Your task to perform on an android device: allow notifications from all sites in the chrome app Image 0: 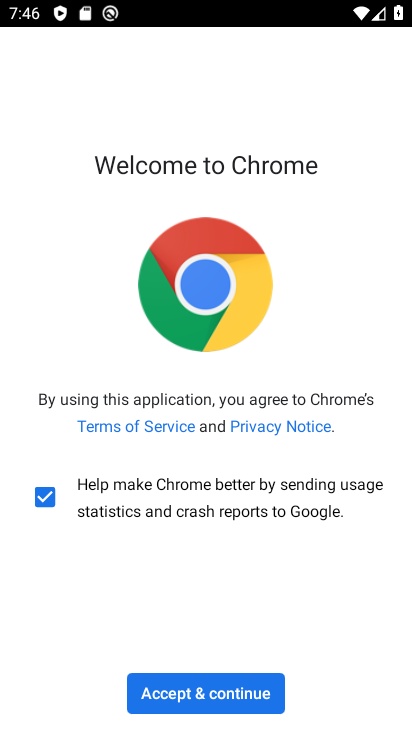
Step 0: press back button
Your task to perform on an android device: allow notifications from all sites in the chrome app Image 1: 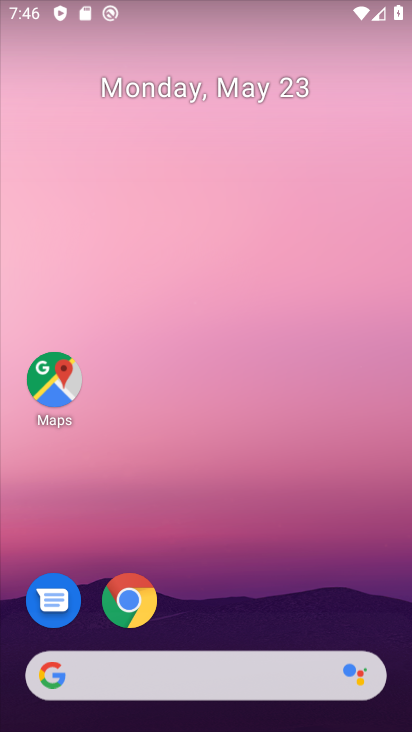
Step 1: click (138, 594)
Your task to perform on an android device: allow notifications from all sites in the chrome app Image 2: 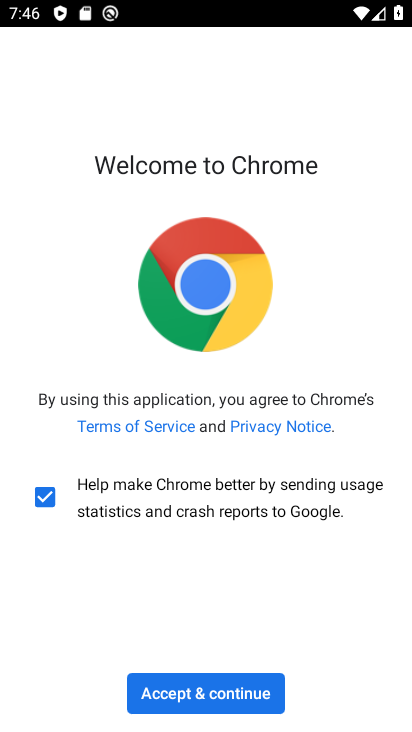
Step 2: click (178, 690)
Your task to perform on an android device: allow notifications from all sites in the chrome app Image 3: 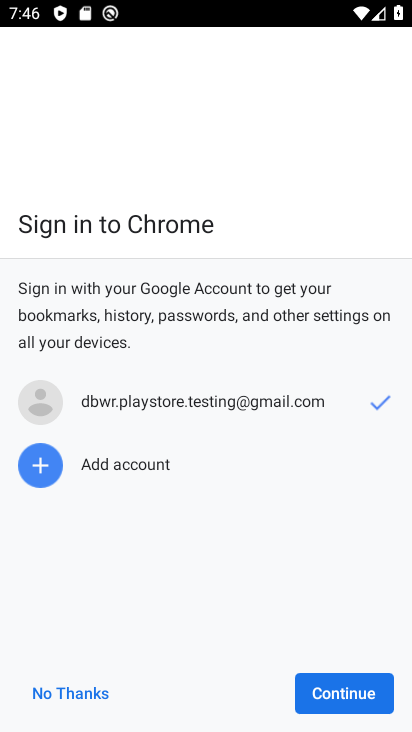
Step 3: click (62, 689)
Your task to perform on an android device: allow notifications from all sites in the chrome app Image 4: 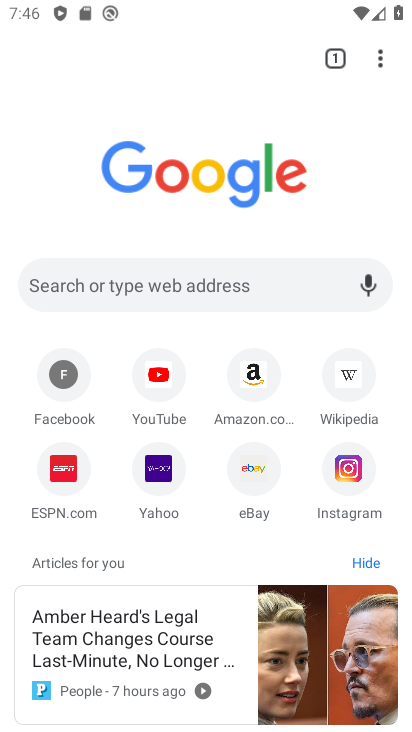
Step 4: click (380, 60)
Your task to perform on an android device: allow notifications from all sites in the chrome app Image 5: 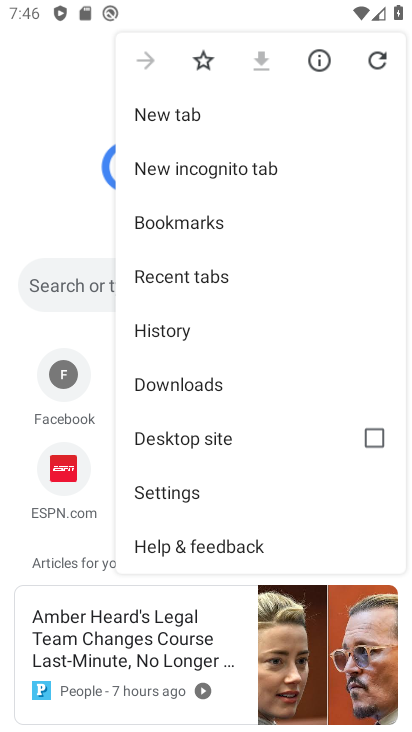
Step 5: click (192, 486)
Your task to perform on an android device: allow notifications from all sites in the chrome app Image 6: 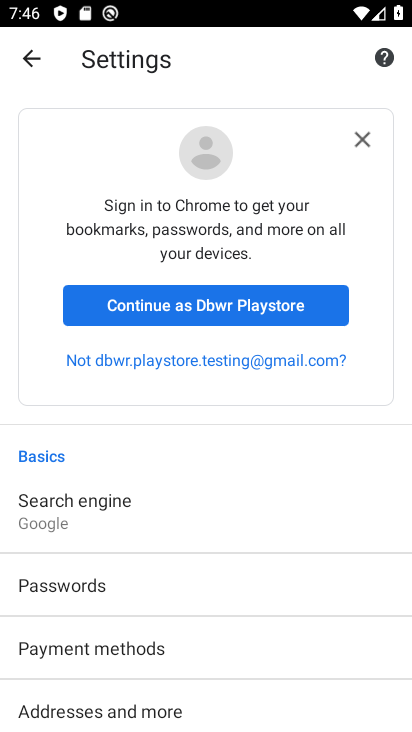
Step 6: click (370, 145)
Your task to perform on an android device: allow notifications from all sites in the chrome app Image 7: 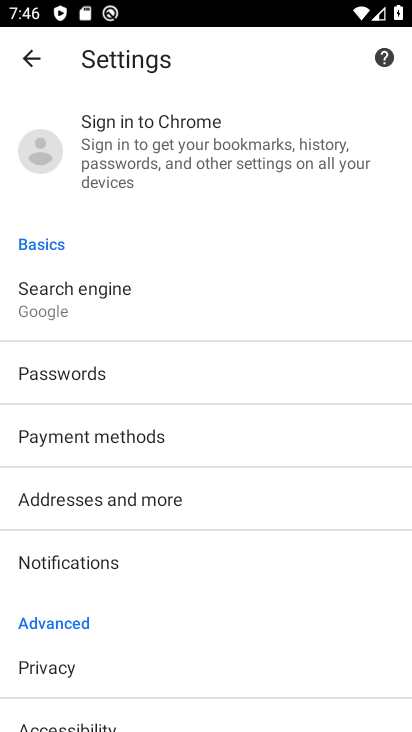
Step 7: drag from (11, 527) to (238, 81)
Your task to perform on an android device: allow notifications from all sites in the chrome app Image 8: 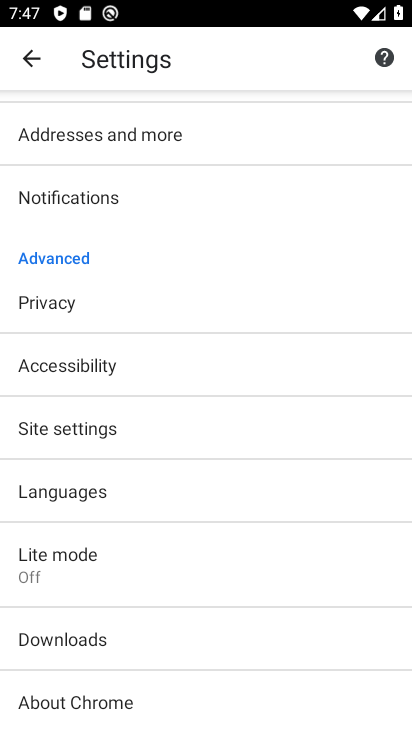
Step 8: click (70, 432)
Your task to perform on an android device: allow notifications from all sites in the chrome app Image 9: 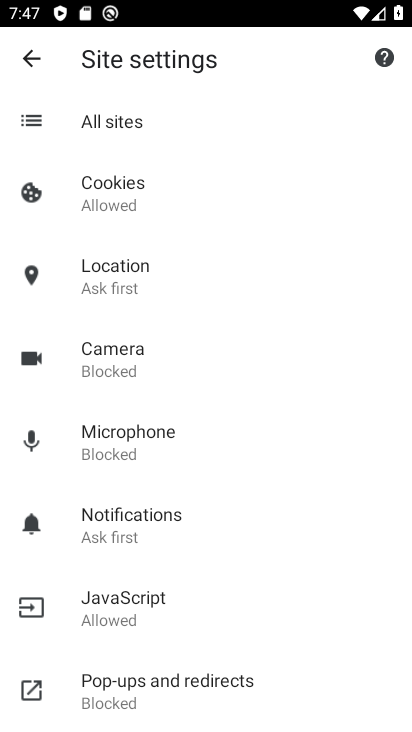
Step 9: click (118, 530)
Your task to perform on an android device: allow notifications from all sites in the chrome app Image 10: 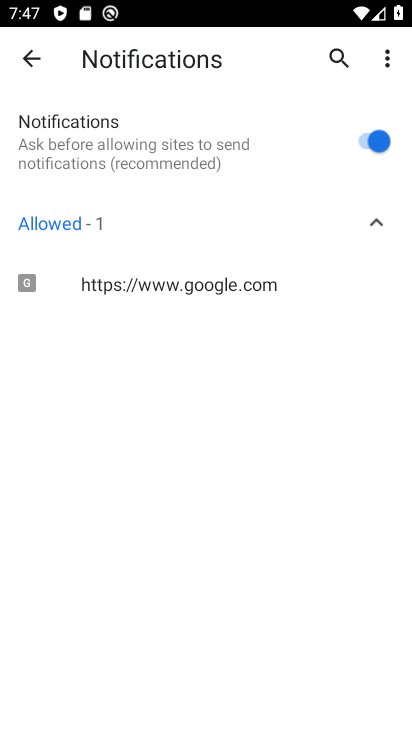
Step 10: click (167, 278)
Your task to perform on an android device: allow notifications from all sites in the chrome app Image 11: 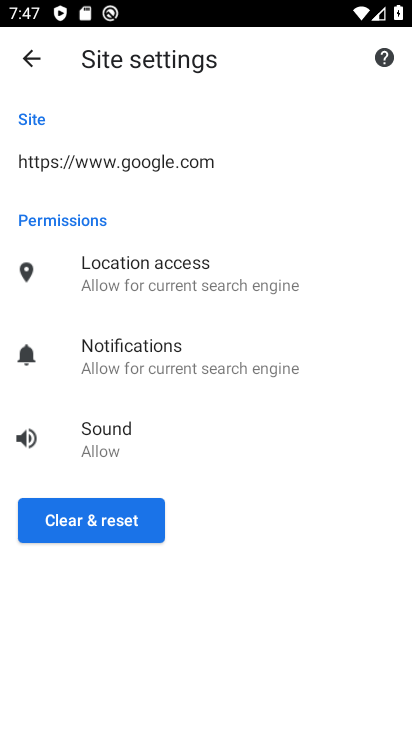
Step 11: click (128, 359)
Your task to perform on an android device: allow notifications from all sites in the chrome app Image 12: 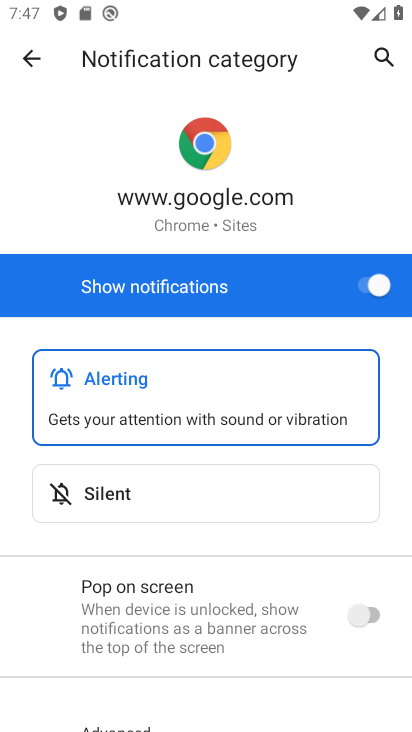
Step 12: click (363, 623)
Your task to perform on an android device: allow notifications from all sites in the chrome app Image 13: 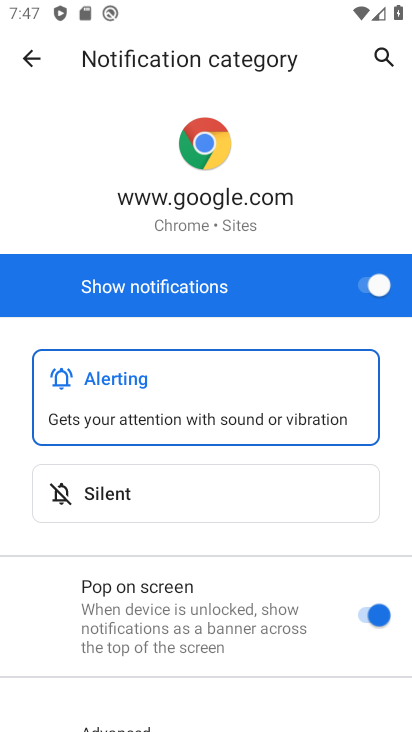
Step 13: task complete